Your task to perform on an android device: read, delete, or share a saved page in the chrome app Image 0: 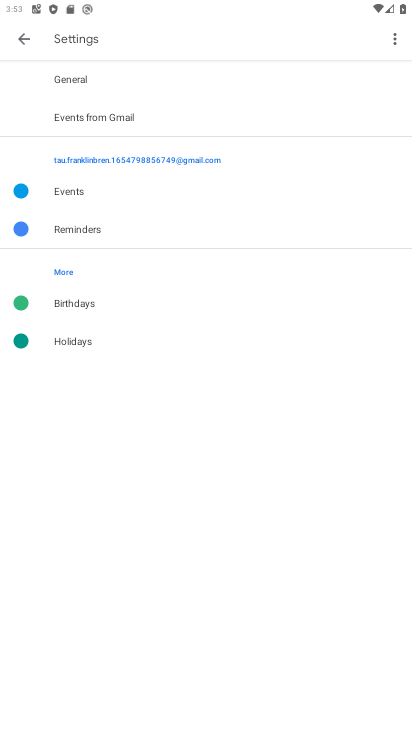
Step 0: press home button
Your task to perform on an android device: read, delete, or share a saved page in the chrome app Image 1: 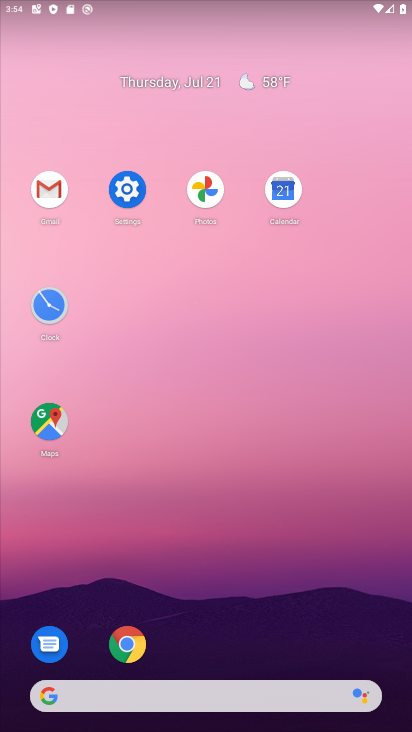
Step 1: click (131, 640)
Your task to perform on an android device: read, delete, or share a saved page in the chrome app Image 2: 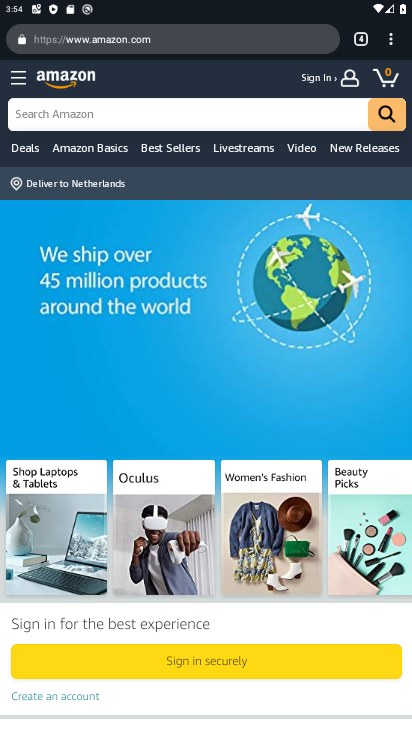
Step 2: click (384, 31)
Your task to perform on an android device: read, delete, or share a saved page in the chrome app Image 3: 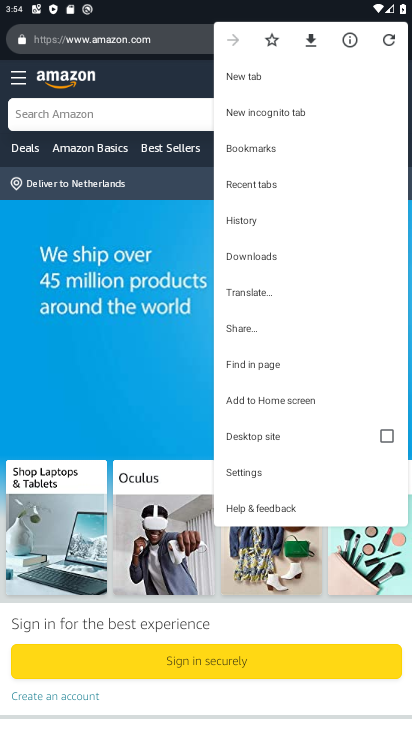
Step 3: click (289, 257)
Your task to perform on an android device: read, delete, or share a saved page in the chrome app Image 4: 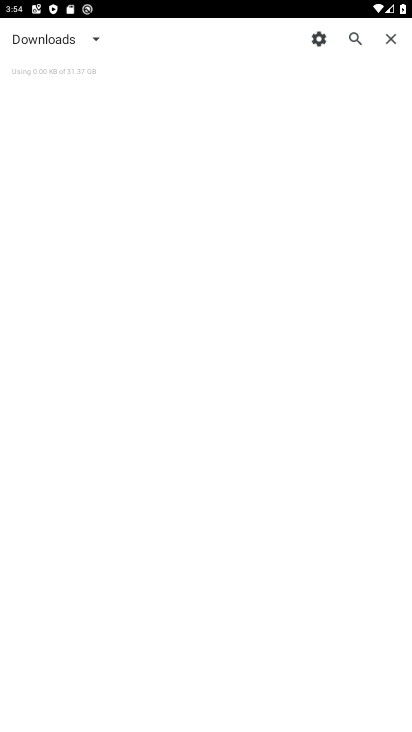
Step 4: task complete